Your task to perform on an android device: turn on notifications settings in the gmail app Image 0: 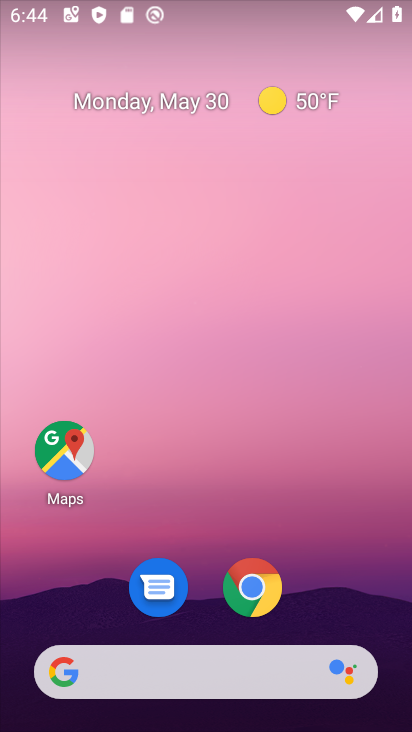
Step 0: drag from (287, 443) to (213, 69)
Your task to perform on an android device: turn on notifications settings in the gmail app Image 1: 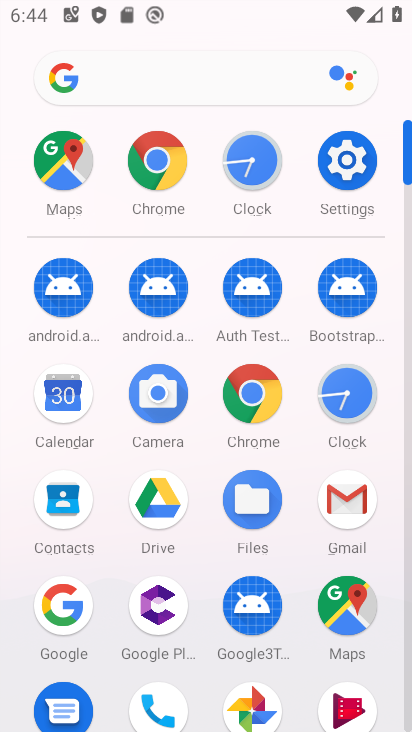
Step 1: drag from (1, 581) to (41, 244)
Your task to perform on an android device: turn on notifications settings in the gmail app Image 2: 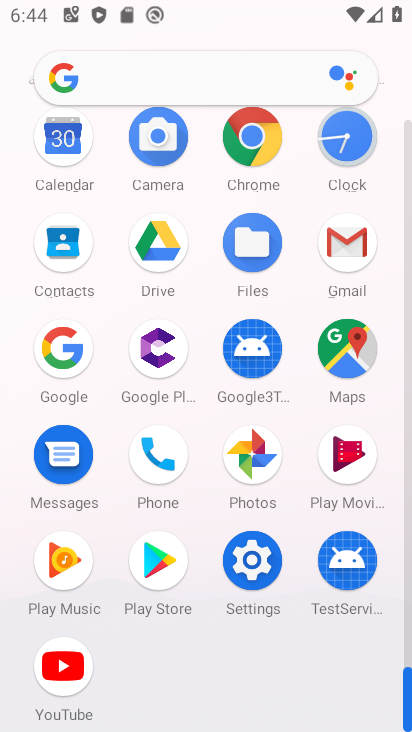
Step 2: click (330, 234)
Your task to perform on an android device: turn on notifications settings in the gmail app Image 3: 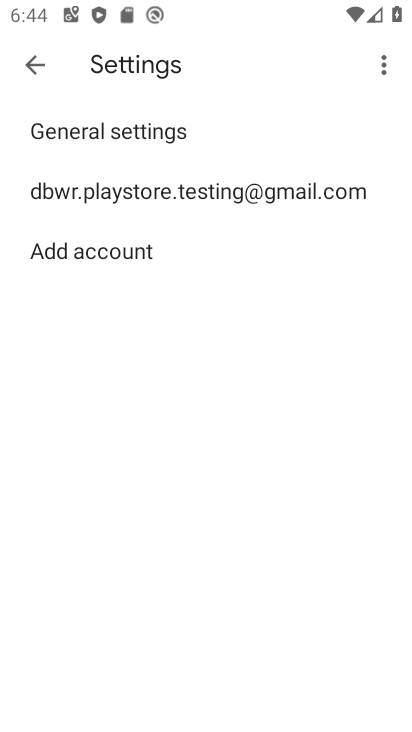
Step 3: click (66, 187)
Your task to perform on an android device: turn on notifications settings in the gmail app Image 4: 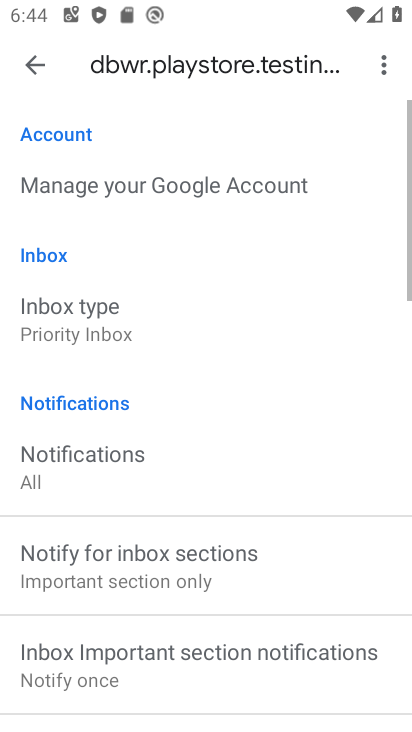
Step 4: drag from (227, 313) to (258, 153)
Your task to perform on an android device: turn on notifications settings in the gmail app Image 5: 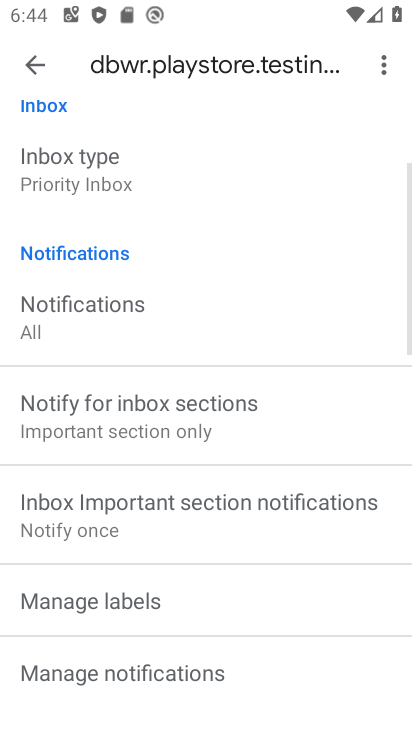
Step 5: drag from (228, 583) to (269, 186)
Your task to perform on an android device: turn on notifications settings in the gmail app Image 6: 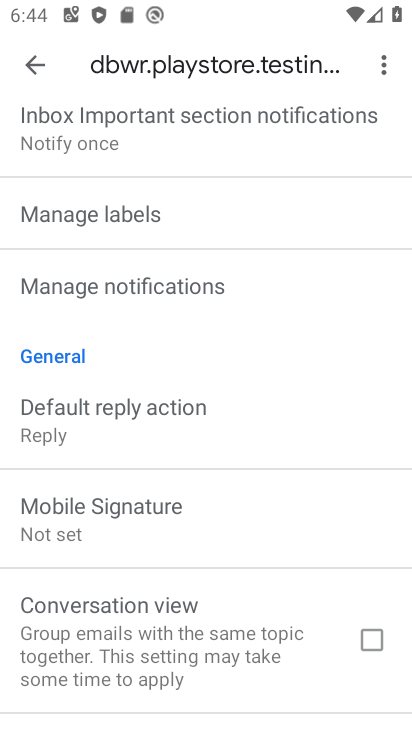
Step 6: drag from (221, 606) to (233, 163)
Your task to perform on an android device: turn on notifications settings in the gmail app Image 7: 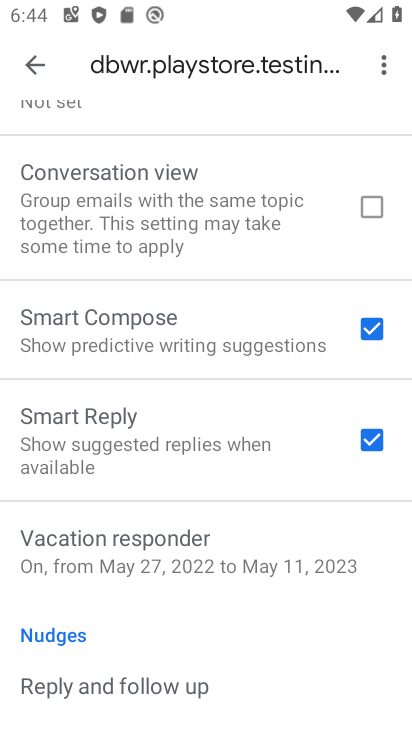
Step 7: drag from (202, 590) to (218, 175)
Your task to perform on an android device: turn on notifications settings in the gmail app Image 8: 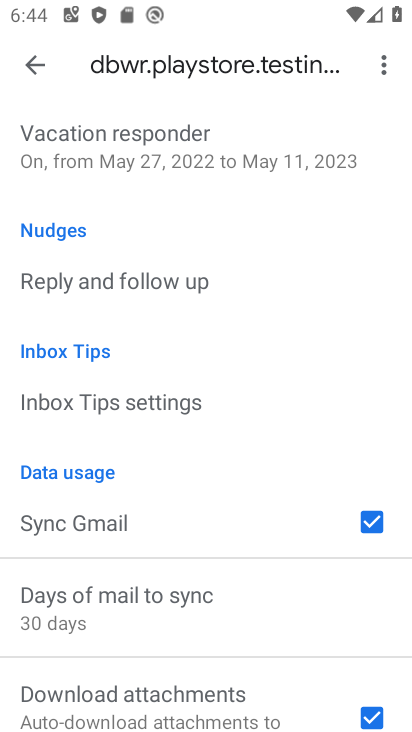
Step 8: drag from (193, 568) to (235, 192)
Your task to perform on an android device: turn on notifications settings in the gmail app Image 9: 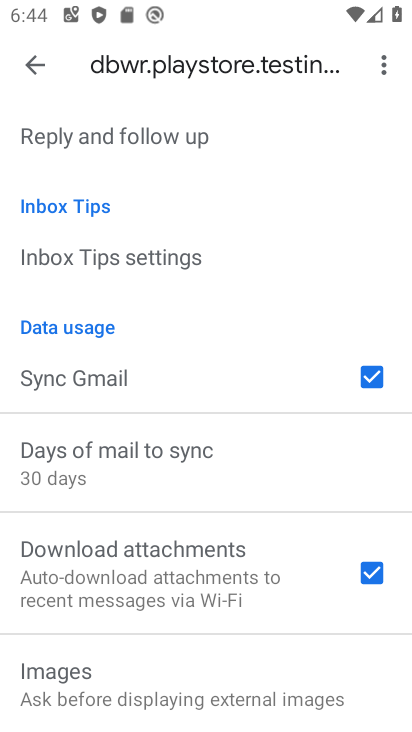
Step 9: drag from (218, 583) to (212, 137)
Your task to perform on an android device: turn on notifications settings in the gmail app Image 10: 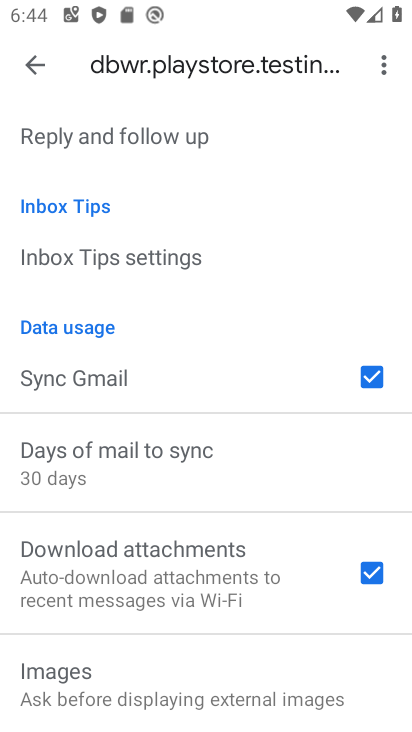
Step 10: drag from (190, 631) to (196, 211)
Your task to perform on an android device: turn on notifications settings in the gmail app Image 11: 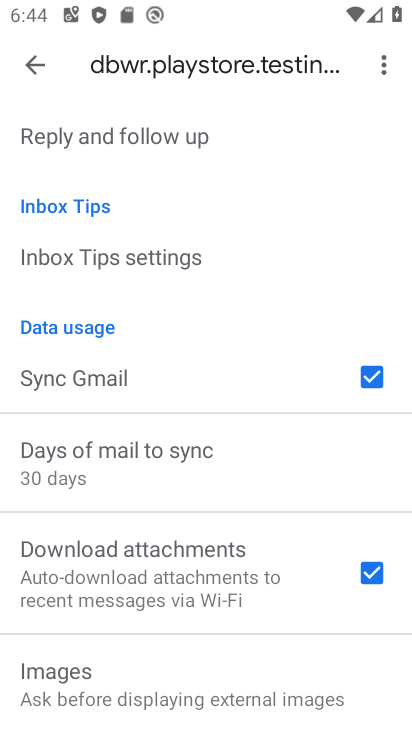
Step 11: drag from (198, 571) to (224, 222)
Your task to perform on an android device: turn on notifications settings in the gmail app Image 12: 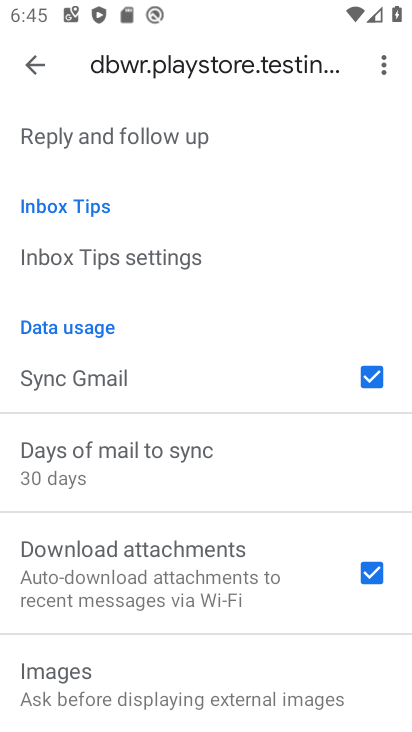
Step 12: drag from (219, 198) to (167, 578)
Your task to perform on an android device: turn on notifications settings in the gmail app Image 13: 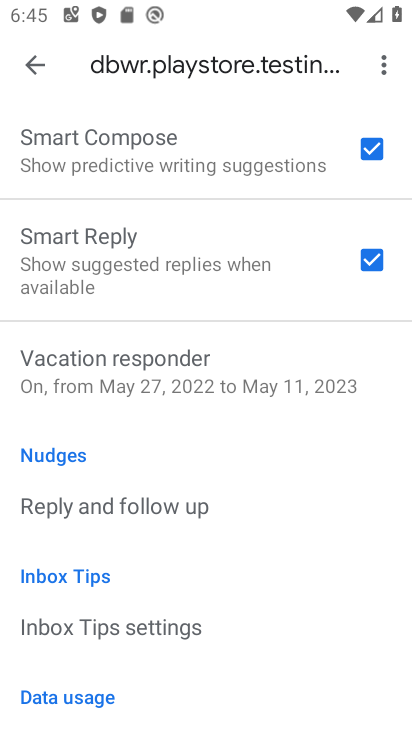
Step 13: drag from (229, 170) to (187, 610)
Your task to perform on an android device: turn on notifications settings in the gmail app Image 14: 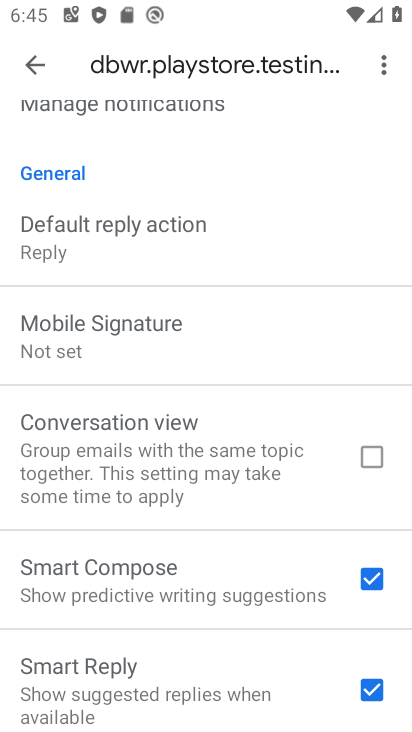
Step 14: drag from (229, 203) to (196, 550)
Your task to perform on an android device: turn on notifications settings in the gmail app Image 15: 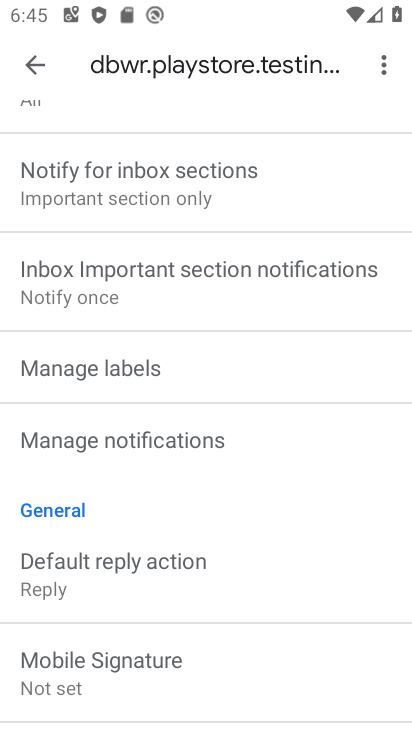
Step 15: click (165, 412)
Your task to perform on an android device: turn on notifications settings in the gmail app Image 16: 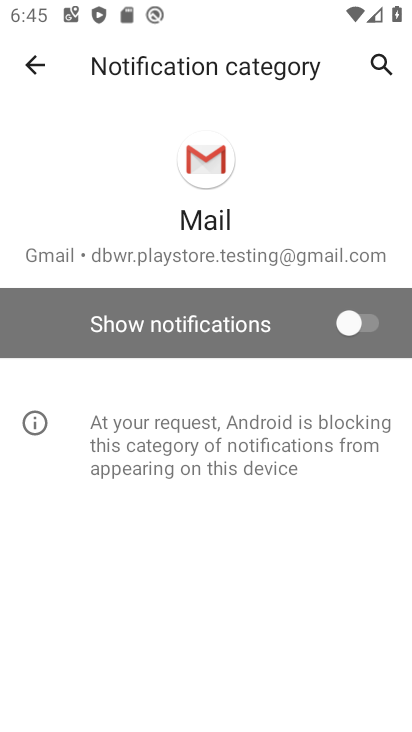
Step 16: click (372, 322)
Your task to perform on an android device: turn on notifications settings in the gmail app Image 17: 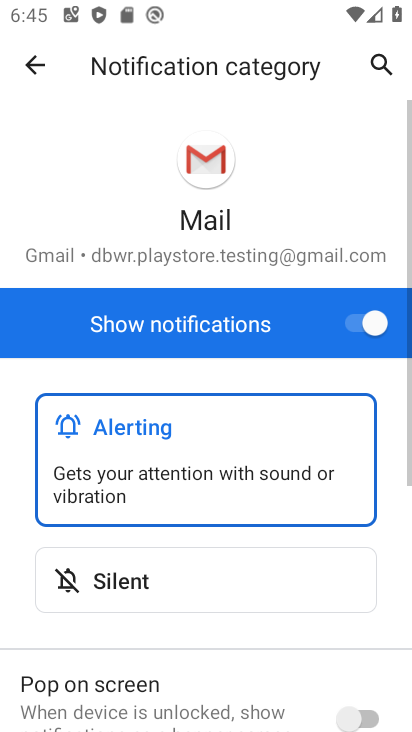
Step 17: task complete